Your task to perform on an android device: Open settings Image 0: 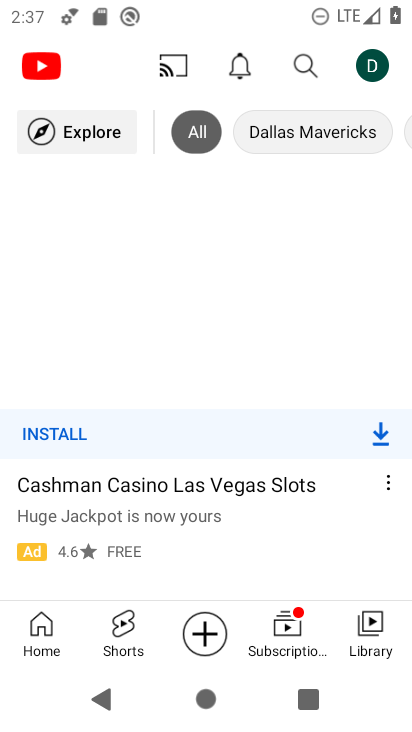
Step 0: press home button
Your task to perform on an android device: Open settings Image 1: 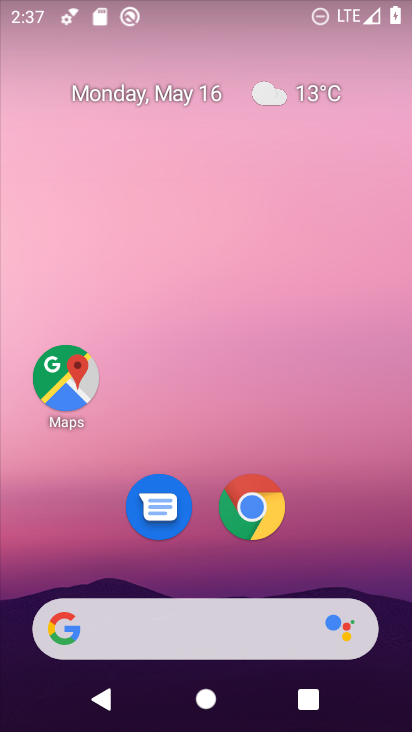
Step 1: drag from (346, 563) to (257, 26)
Your task to perform on an android device: Open settings Image 2: 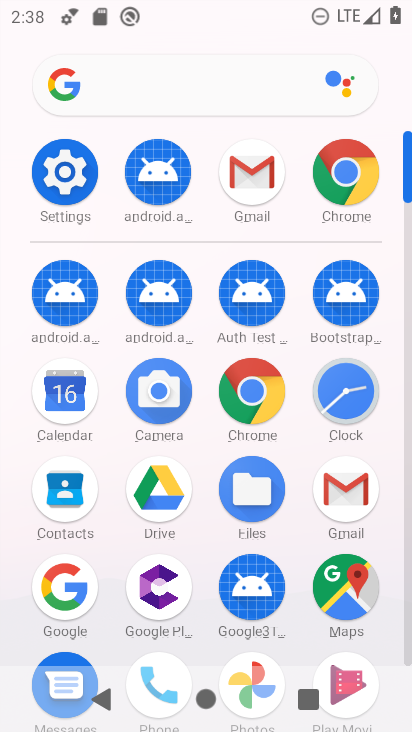
Step 2: click (63, 171)
Your task to perform on an android device: Open settings Image 3: 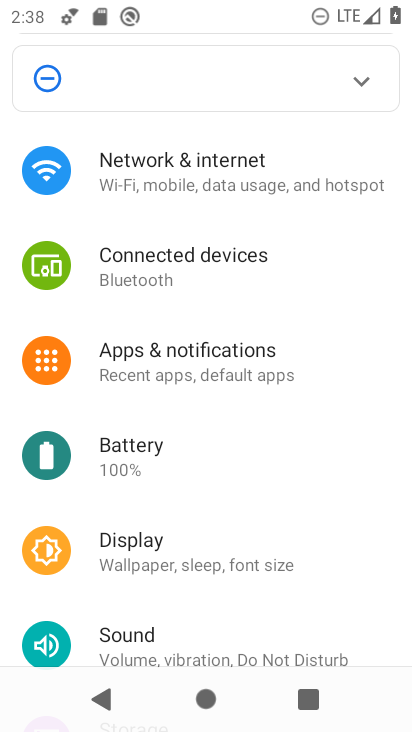
Step 3: task complete